Your task to perform on an android device: Open privacy settings Image 0: 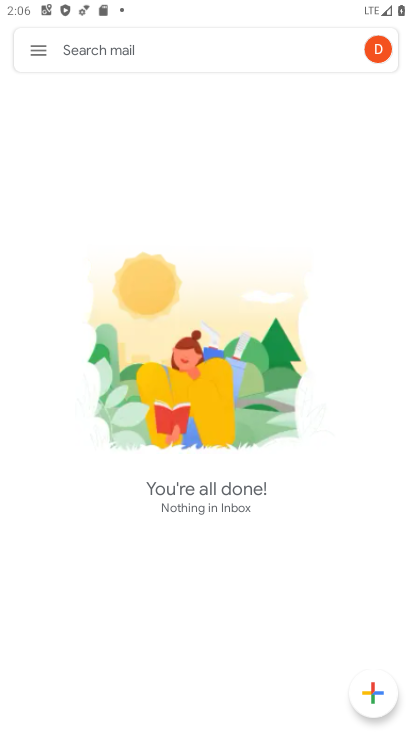
Step 0: press home button
Your task to perform on an android device: Open privacy settings Image 1: 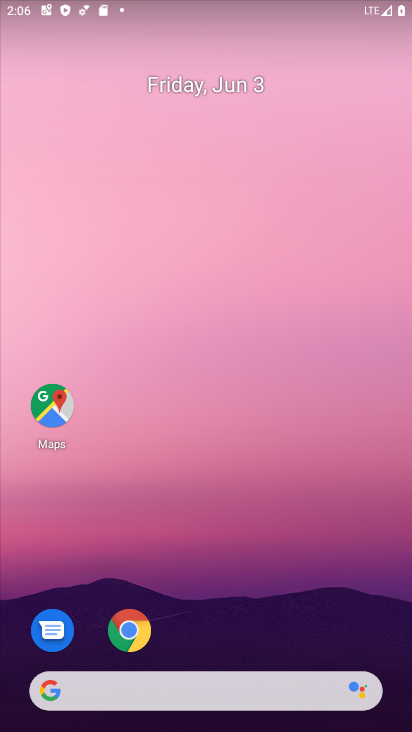
Step 1: drag from (209, 727) to (176, 123)
Your task to perform on an android device: Open privacy settings Image 2: 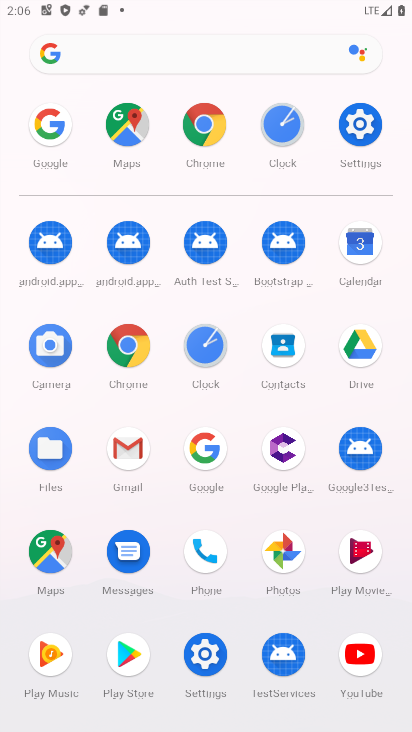
Step 2: click (363, 124)
Your task to perform on an android device: Open privacy settings Image 3: 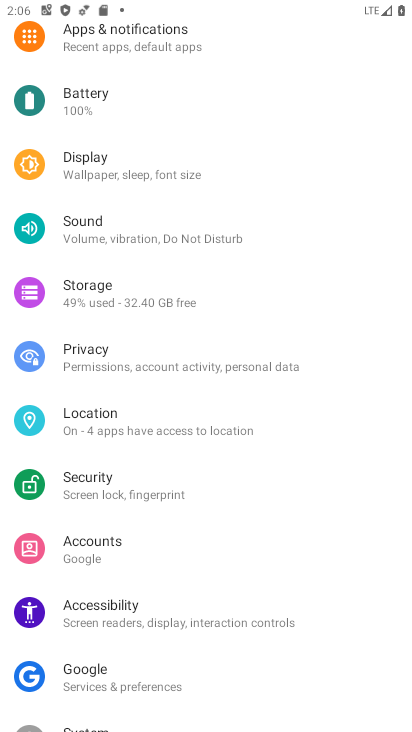
Step 3: click (90, 358)
Your task to perform on an android device: Open privacy settings Image 4: 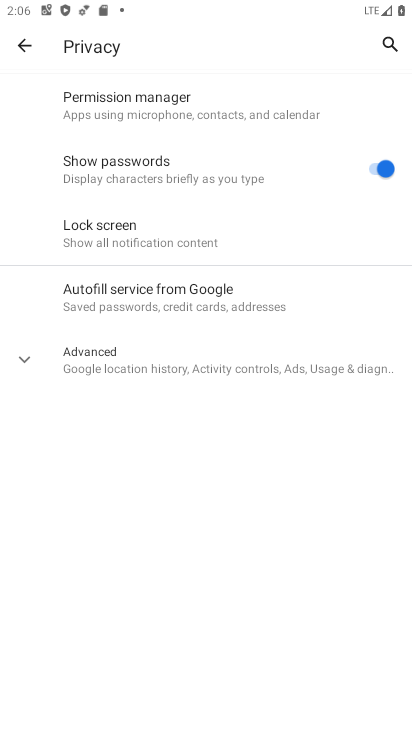
Step 4: task complete